Your task to perform on an android device: Open calendar and show me the fourth week of next month Image 0: 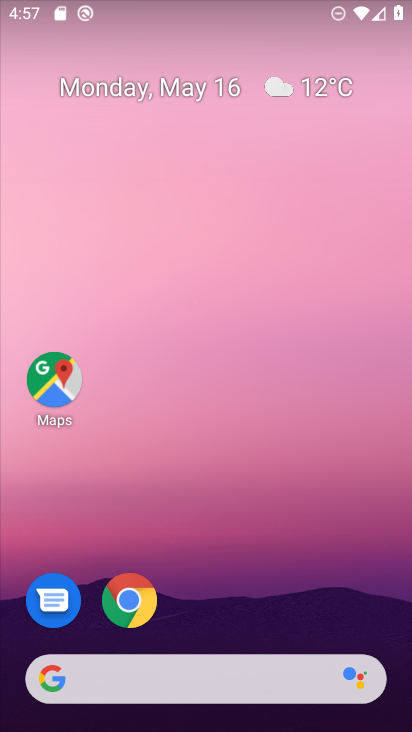
Step 0: click (227, 109)
Your task to perform on an android device: Open calendar and show me the fourth week of next month Image 1: 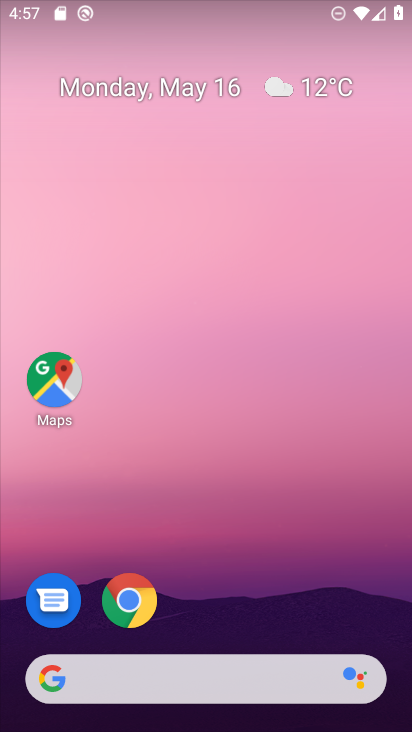
Step 1: drag from (277, 521) to (229, 7)
Your task to perform on an android device: Open calendar and show me the fourth week of next month Image 2: 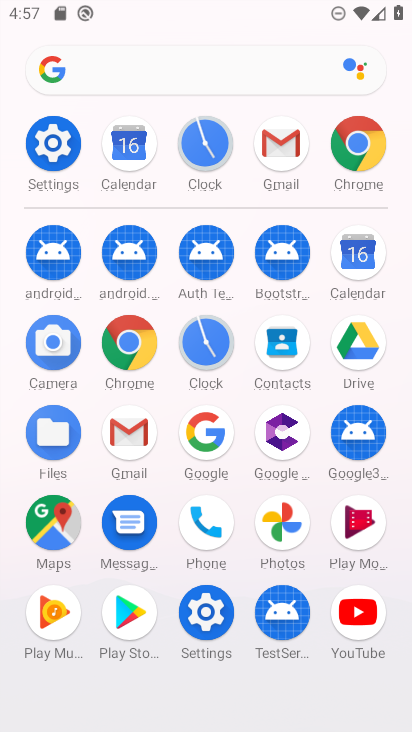
Step 2: click (365, 259)
Your task to perform on an android device: Open calendar and show me the fourth week of next month Image 3: 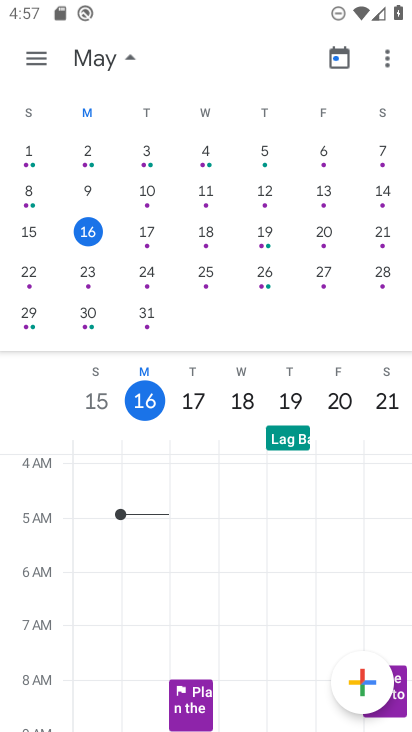
Step 3: click (109, 64)
Your task to perform on an android device: Open calendar and show me the fourth week of next month Image 4: 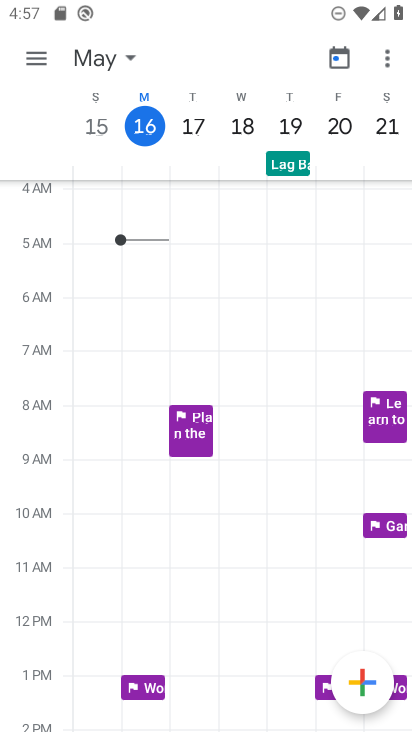
Step 4: click (87, 60)
Your task to perform on an android device: Open calendar and show me the fourth week of next month Image 5: 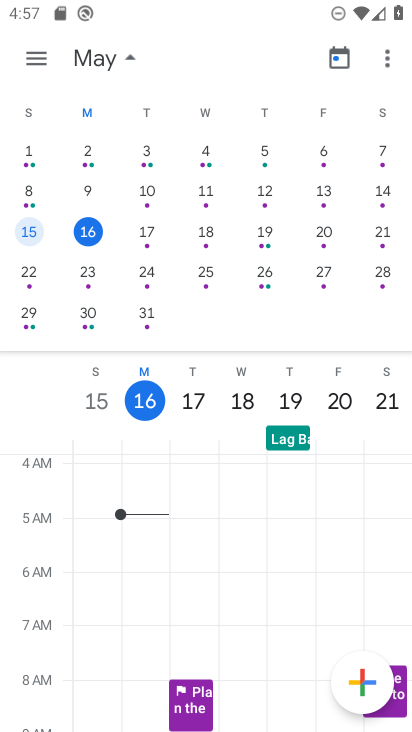
Step 5: drag from (362, 221) to (24, 229)
Your task to perform on an android device: Open calendar and show me the fourth week of next month Image 6: 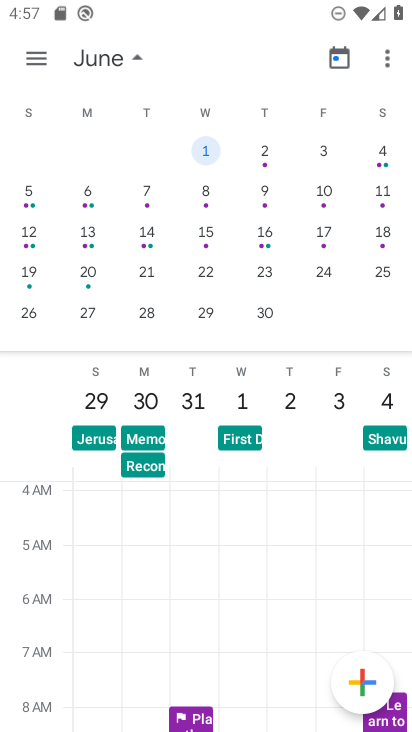
Step 6: click (30, 309)
Your task to perform on an android device: Open calendar and show me the fourth week of next month Image 7: 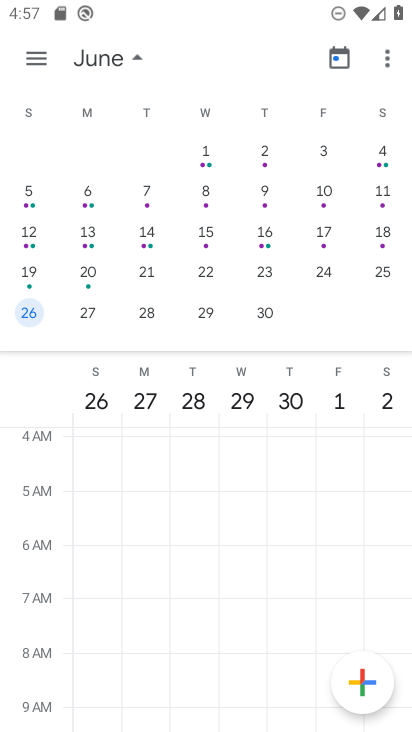
Step 7: task complete